Your task to perform on an android device: install app "Gboard" Image 0: 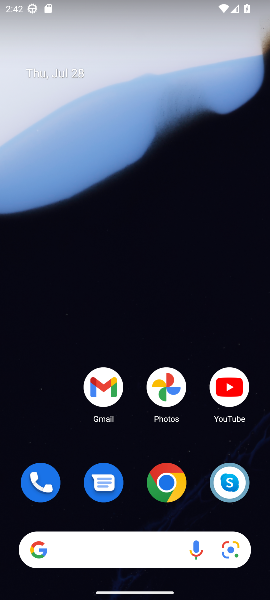
Step 0: drag from (139, 501) to (141, 87)
Your task to perform on an android device: install app "Gboard" Image 1: 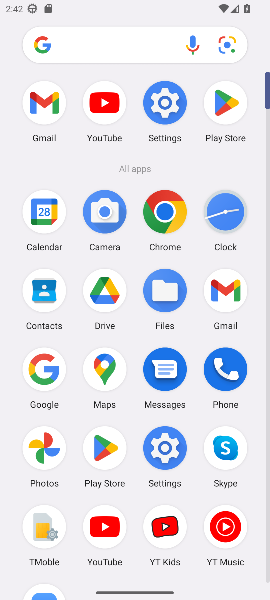
Step 1: click (219, 99)
Your task to perform on an android device: install app "Gboard" Image 2: 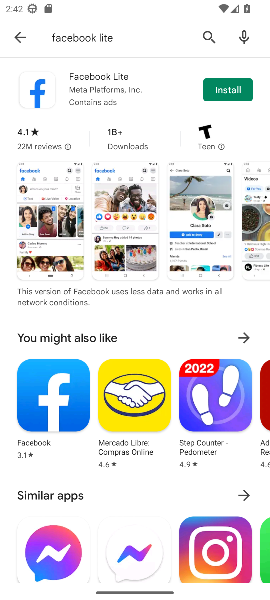
Step 2: click (20, 40)
Your task to perform on an android device: install app "Gboard" Image 3: 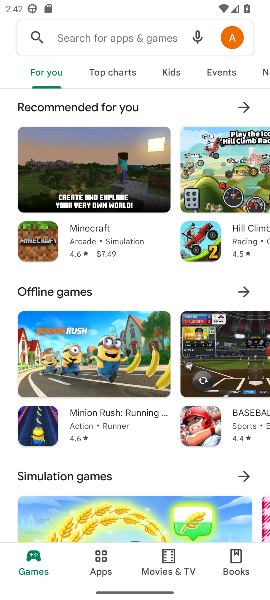
Step 3: click (100, 40)
Your task to perform on an android device: install app "Gboard" Image 4: 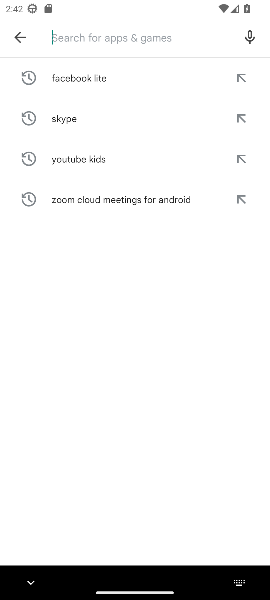
Step 4: type "gboard"
Your task to perform on an android device: install app "Gboard" Image 5: 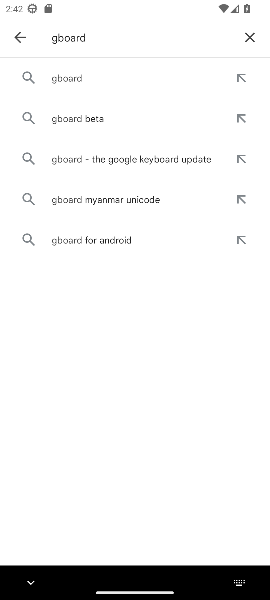
Step 5: click (74, 81)
Your task to perform on an android device: install app "Gboard" Image 6: 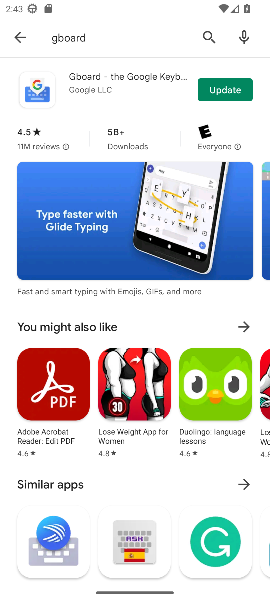
Step 6: task complete